Your task to perform on an android device: move a message to another label in the gmail app Image 0: 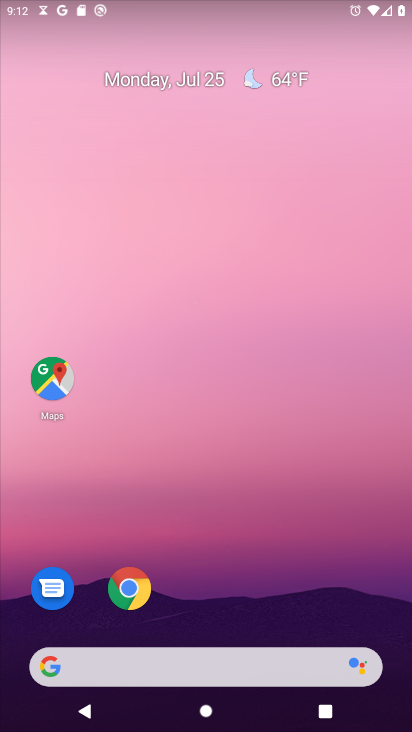
Step 0: click (235, 280)
Your task to perform on an android device: move a message to another label in the gmail app Image 1: 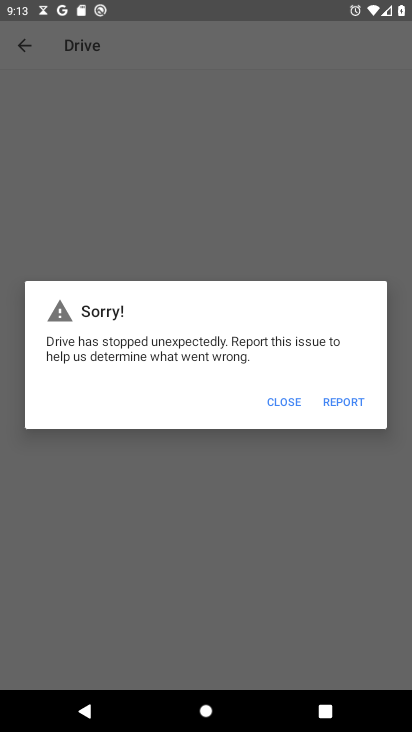
Step 1: press home button
Your task to perform on an android device: move a message to another label in the gmail app Image 2: 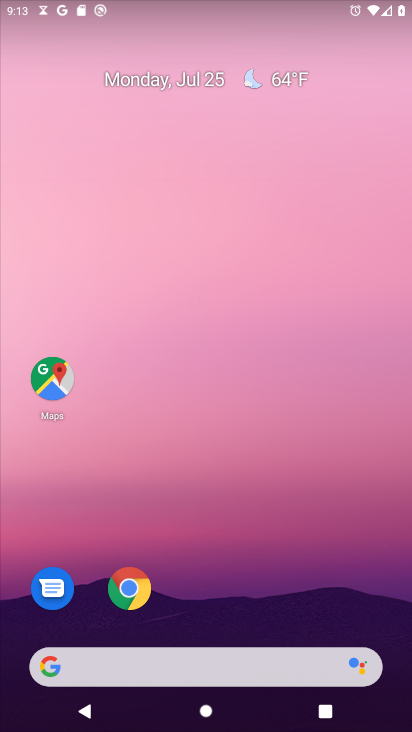
Step 2: drag from (189, 649) to (163, 133)
Your task to perform on an android device: move a message to another label in the gmail app Image 3: 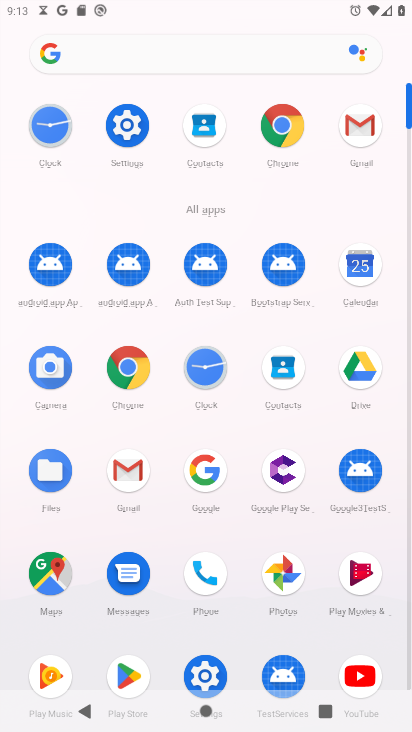
Step 3: click (135, 472)
Your task to perform on an android device: move a message to another label in the gmail app Image 4: 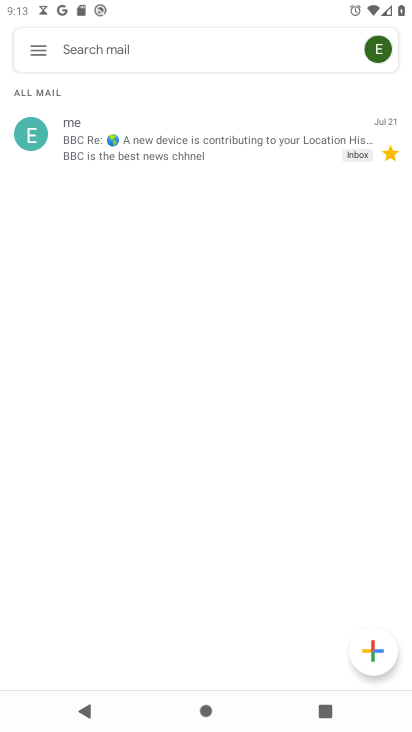
Step 4: click (26, 139)
Your task to perform on an android device: move a message to another label in the gmail app Image 5: 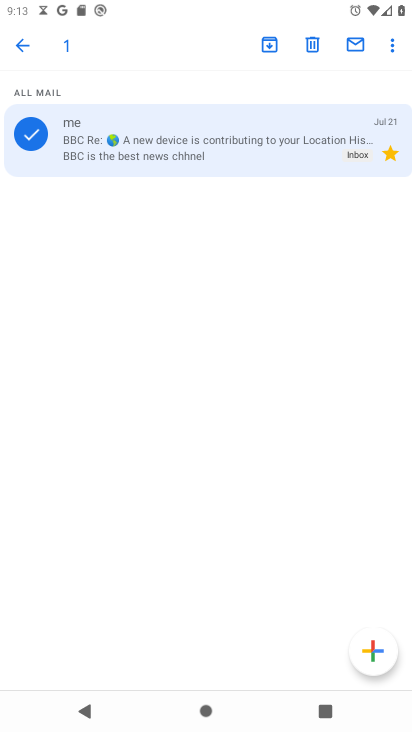
Step 5: click (392, 44)
Your task to perform on an android device: move a message to another label in the gmail app Image 6: 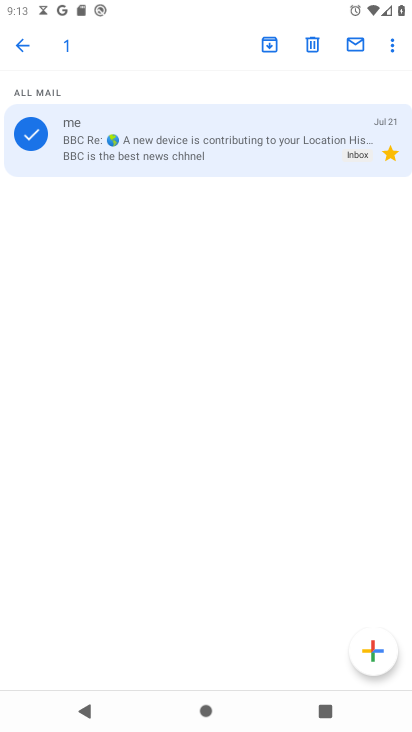
Step 6: click (390, 53)
Your task to perform on an android device: move a message to another label in the gmail app Image 7: 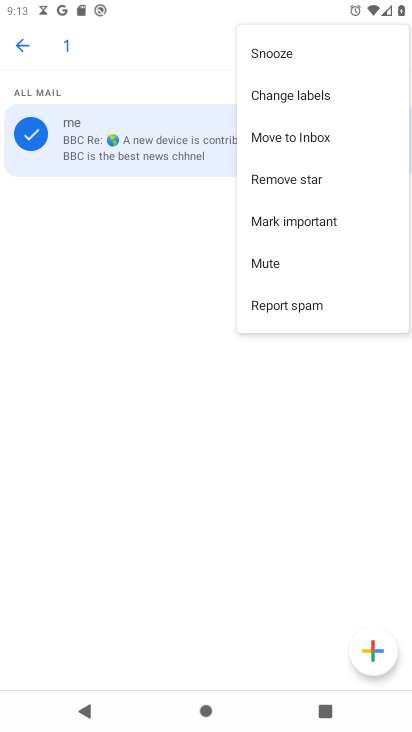
Step 7: click (287, 97)
Your task to perform on an android device: move a message to another label in the gmail app Image 8: 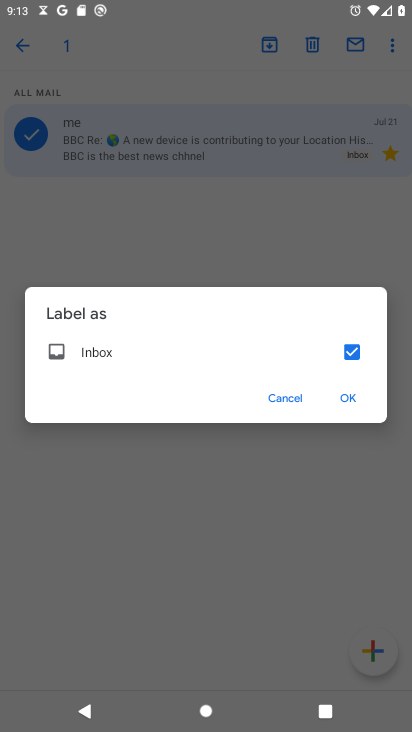
Step 8: click (347, 356)
Your task to perform on an android device: move a message to another label in the gmail app Image 9: 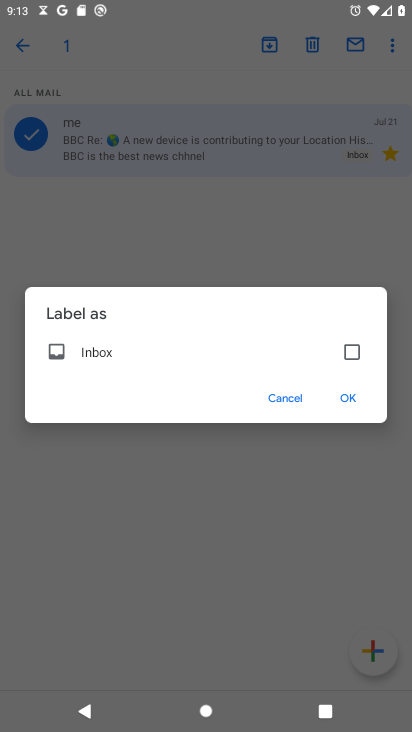
Step 9: click (345, 404)
Your task to perform on an android device: move a message to another label in the gmail app Image 10: 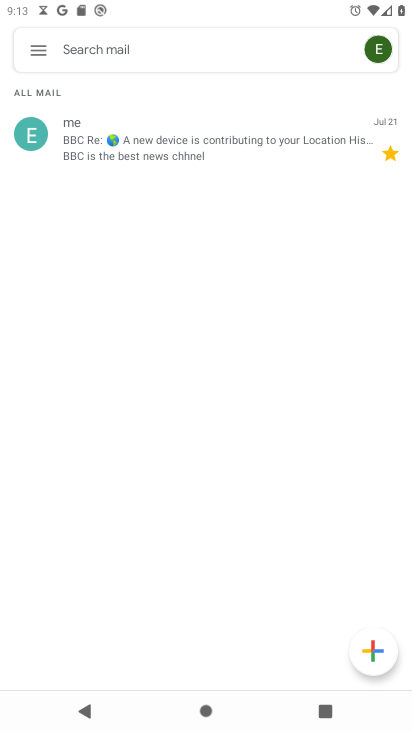
Step 10: task complete